Your task to perform on an android device: Find coffee shops on Maps Image 0: 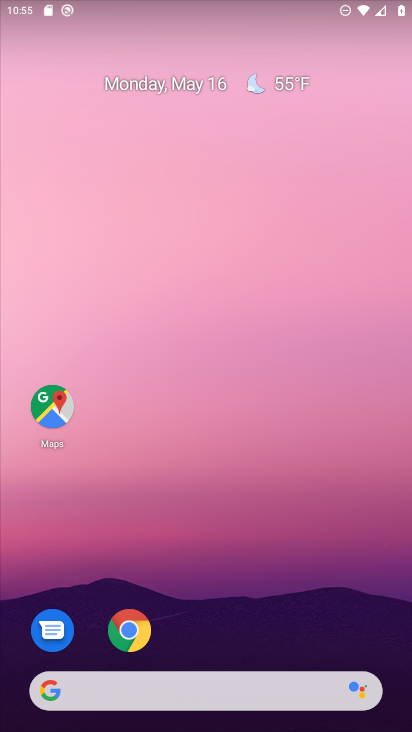
Step 0: drag from (230, 639) to (276, 208)
Your task to perform on an android device: Find coffee shops on Maps Image 1: 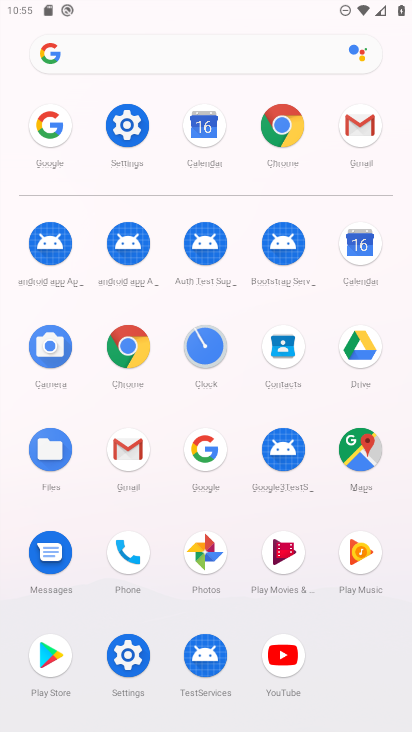
Step 1: click (353, 459)
Your task to perform on an android device: Find coffee shops on Maps Image 2: 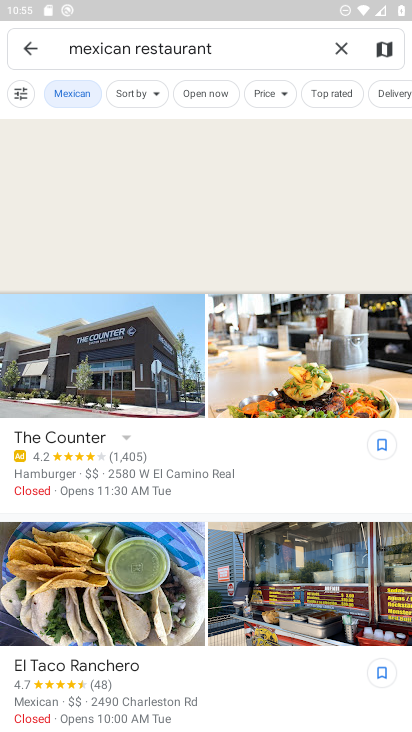
Step 2: click (343, 40)
Your task to perform on an android device: Find coffee shops on Maps Image 3: 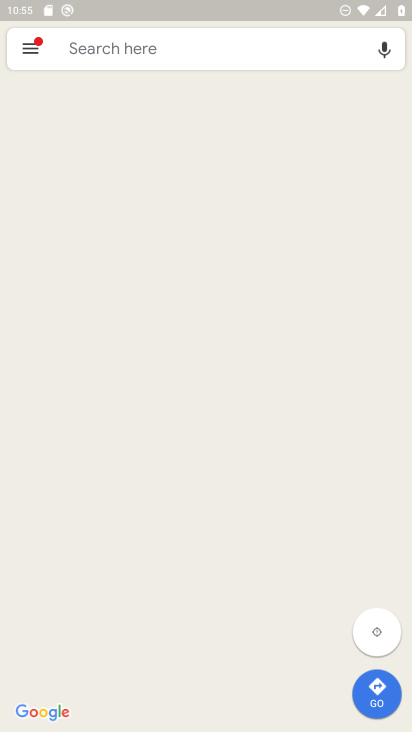
Step 3: click (192, 37)
Your task to perform on an android device: Find coffee shops on Maps Image 4: 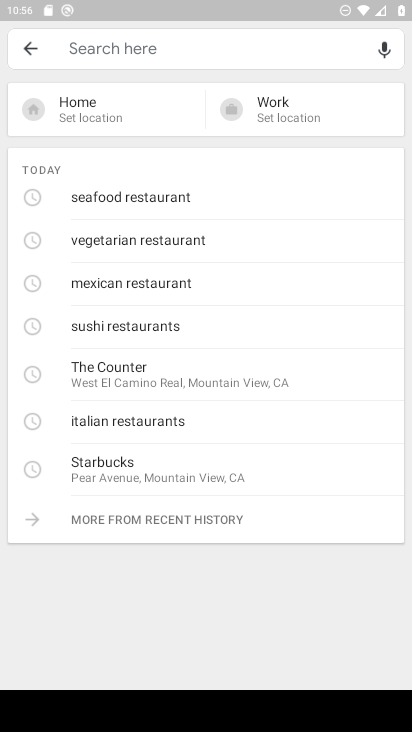
Step 4: type "coffee shops"
Your task to perform on an android device: Find coffee shops on Maps Image 5: 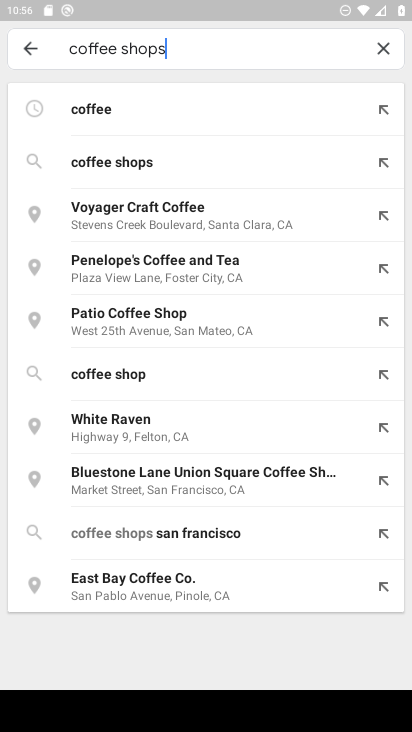
Step 5: click (149, 167)
Your task to perform on an android device: Find coffee shops on Maps Image 6: 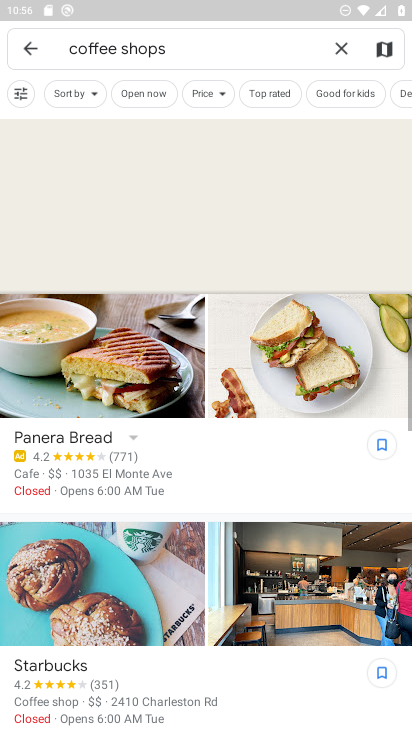
Step 6: task complete